Your task to perform on an android device: Go to Yahoo.com Image 0: 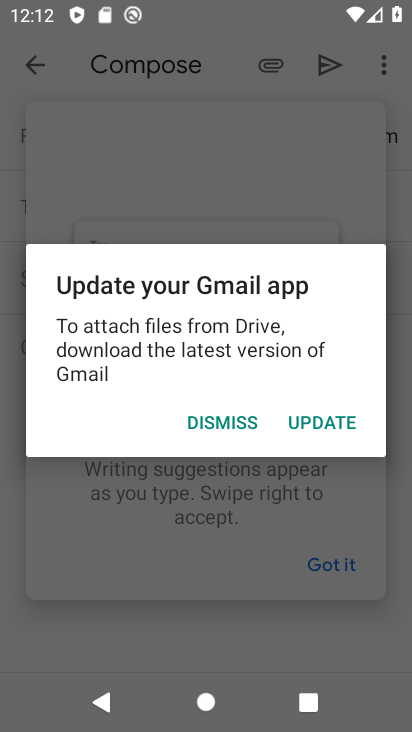
Step 0: press home button
Your task to perform on an android device: Go to Yahoo.com Image 1: 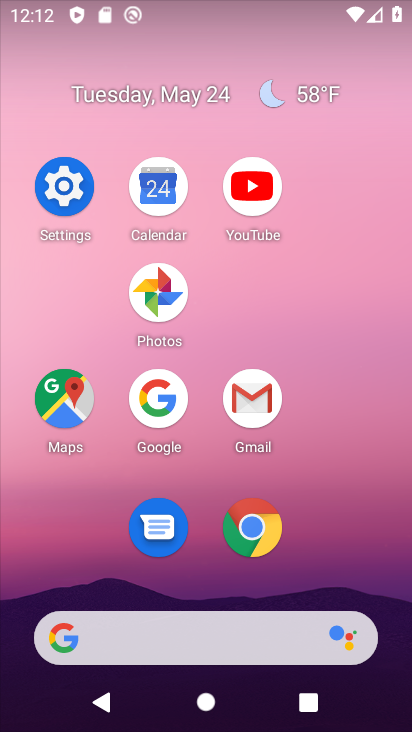
Step 1: click (240, 528)
Your task to perform on an android device: Go to Yahoo.com Image 2: 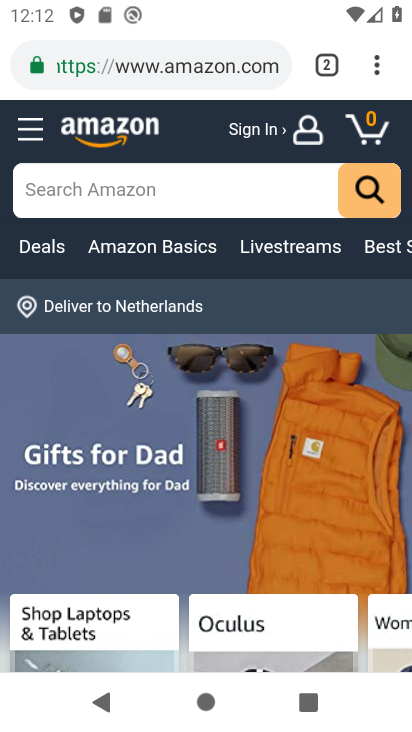
Step 2: click (332, 70)
Your task to perform on an android device: Go to Yahoo.com Image 3: 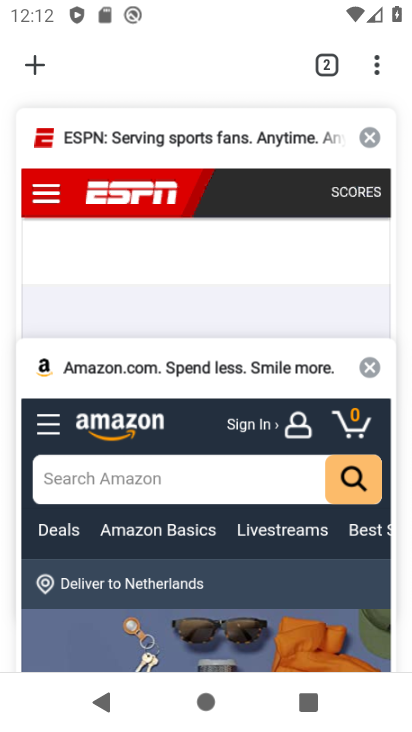
Step 3: click (40, 54)
Your task to perform on an android device: Go to Yahoo.com Image 4: 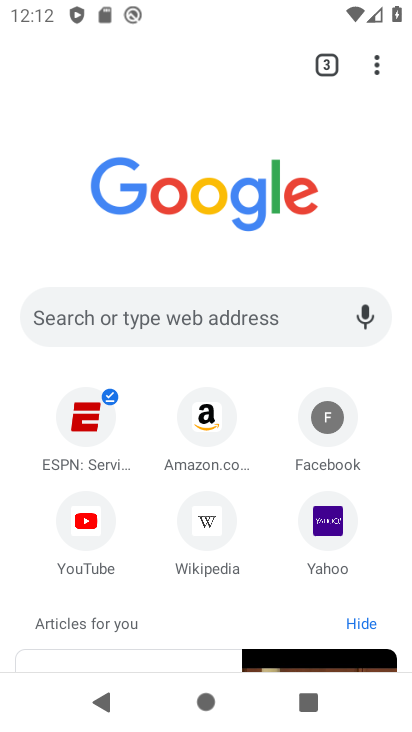
Step 4: click (323, 510)
Your task to perform on an android device: Go to Yahoo.com Image 5: 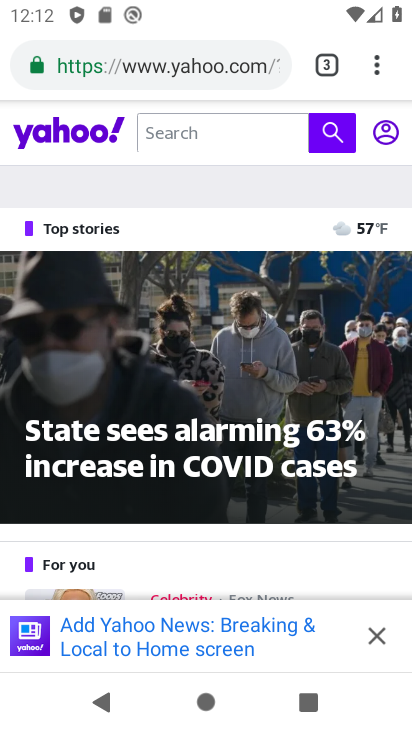
Step 5: task complete